Your task to perform on an android device: Go to Amazon Image 0: 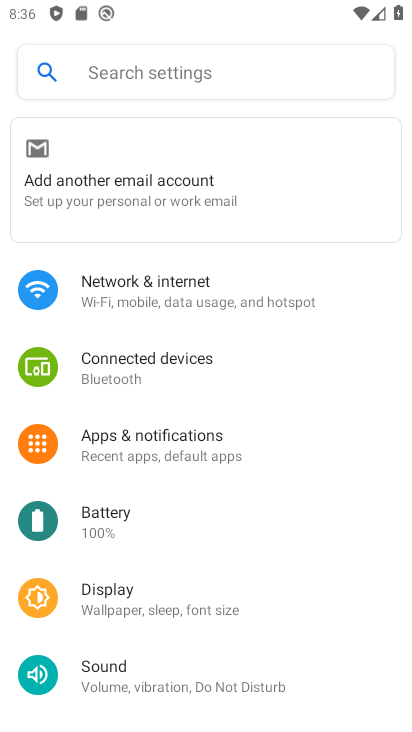
Step 0: press back button
Your task to perform on an android device: Go to Amazon Image 1: 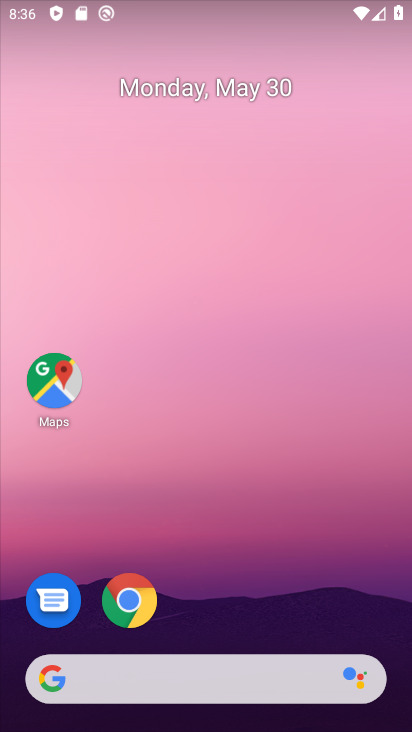
Step 1: drag from (237, 577) to (219, 25)
Your task to perform on an android device: Go to Amazon Image 2: 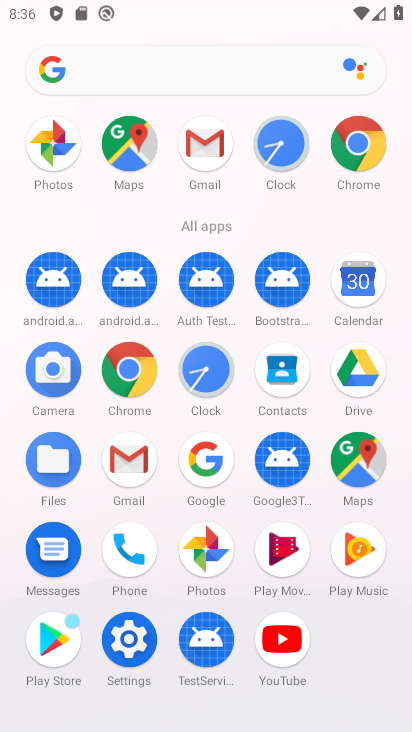
Step 2: click (128, 365)
Your task to perform on an android device: Go to Amazon Image 3: 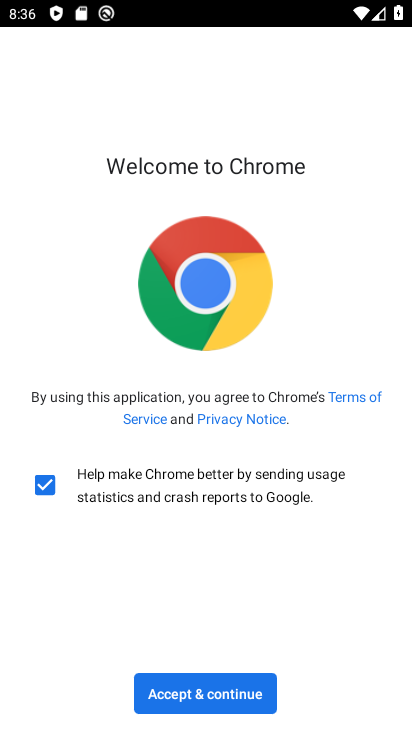
Step 3: click (178, 685)
Your task to perform on an android device: Go to Amazon Image 4: 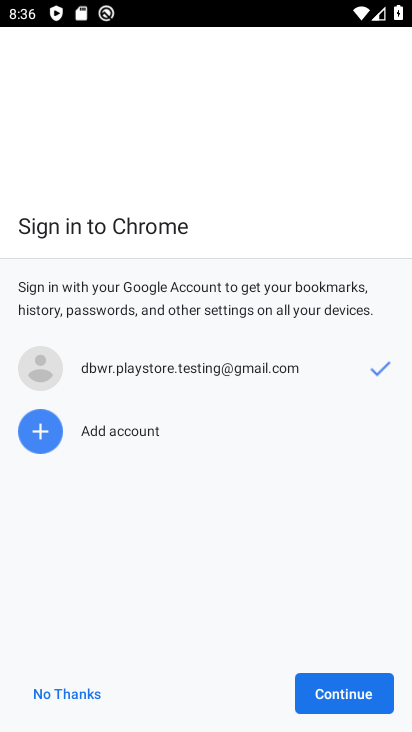
Step 4: click (344, 684)
Your task to perform on an android device: Go to Amazon Image 5: 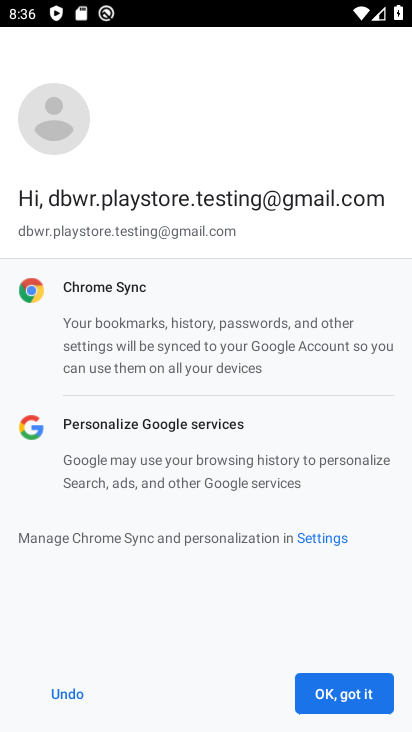
Step 5: click (344, 684)
Your task to perform on an android device: Go to Amazon Image 6: 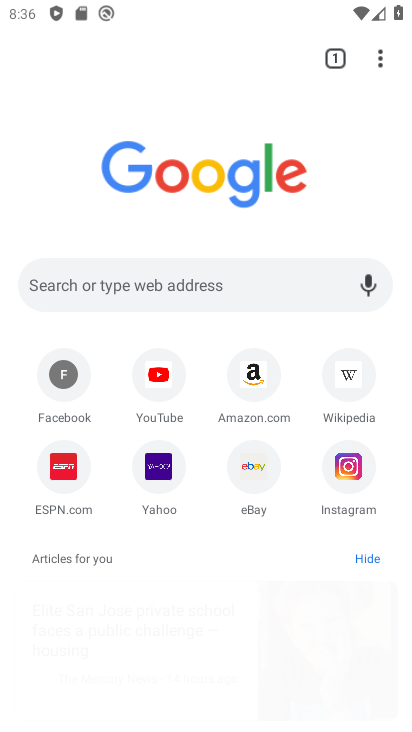
Step 6: click (262, 372)
Your task to perform on an android device: Go to Amazon Image 7: 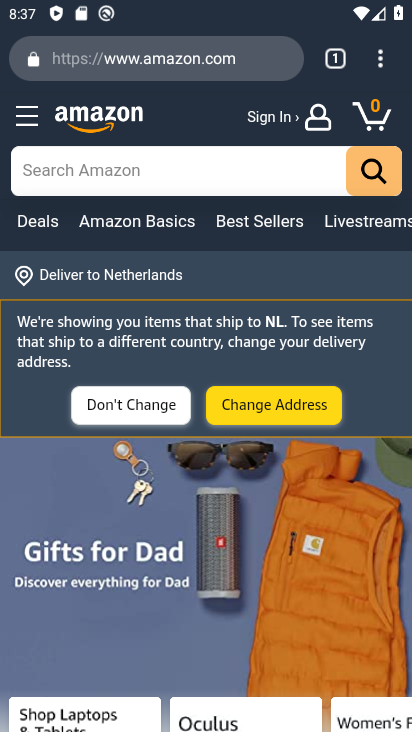
Step 7: task complete